Your task to perform on an android device: open device folders in google photos Image 0: 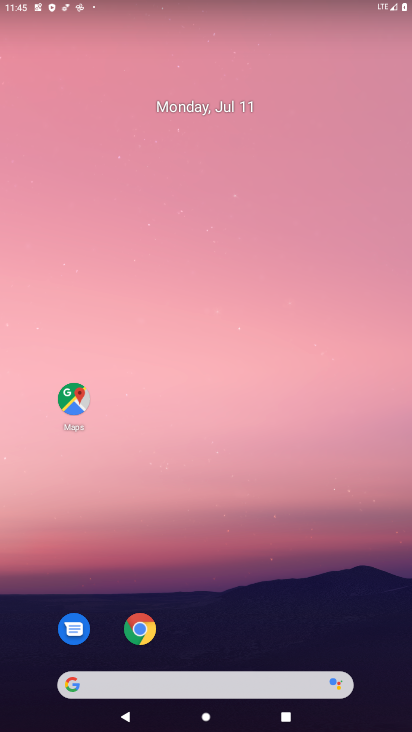
Step 0: drag from (288, 616) to (236, 69)
Your task to perform on an android device: open device folders in google photos Image 1: 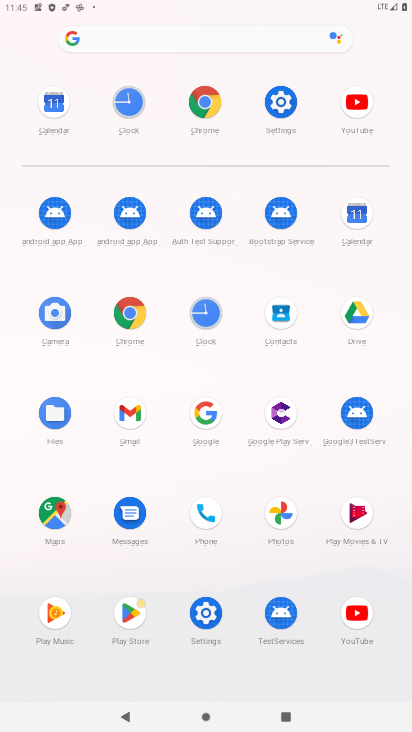
Step 1: click (281, 126)
Your task to perform on an android device: open device folders in google photos Image 2: 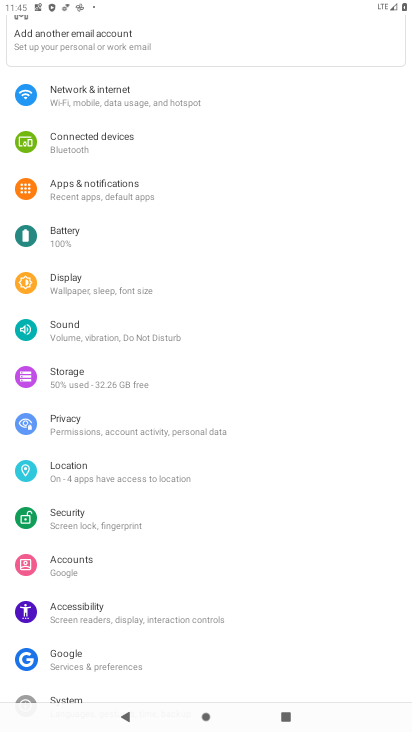
Step 2: press home button
Your task to perform on an android device: open device folders in google photos Image 3: 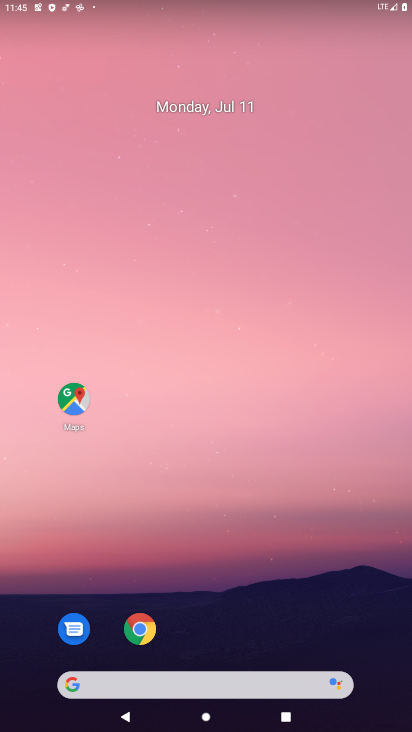
Step 3: drag from (290, 633) to (245, 183)
Your task to perform on an android device: open device folders in google photos Image 4: 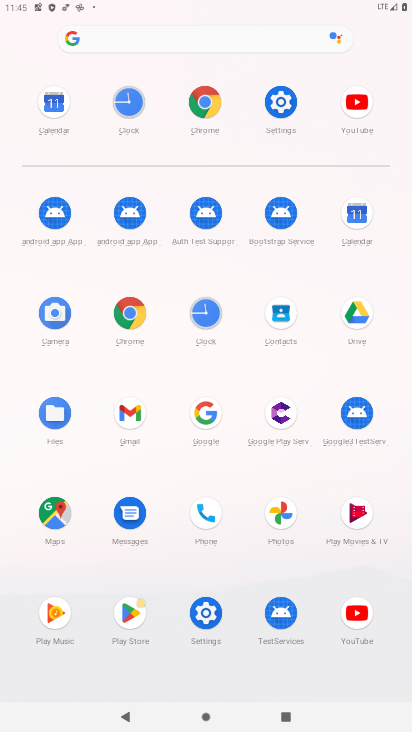
Step 4: click (269, 502)
Your task to perform on an android device: open device folders in google photos Image 5: 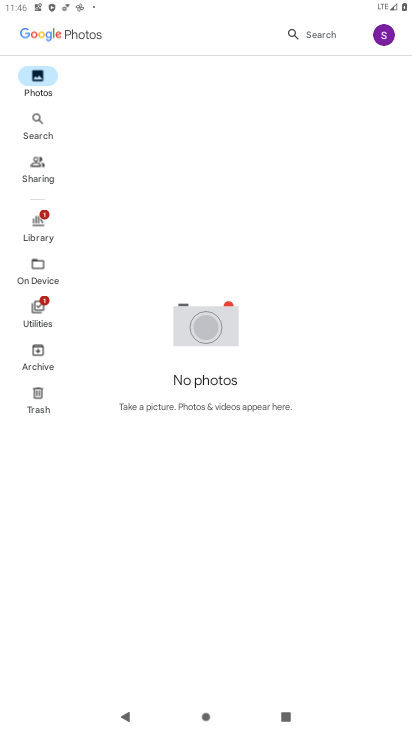
Step 5: click (32, 269)
Your task to perform on an android device: open device folders in google photos Image 6: 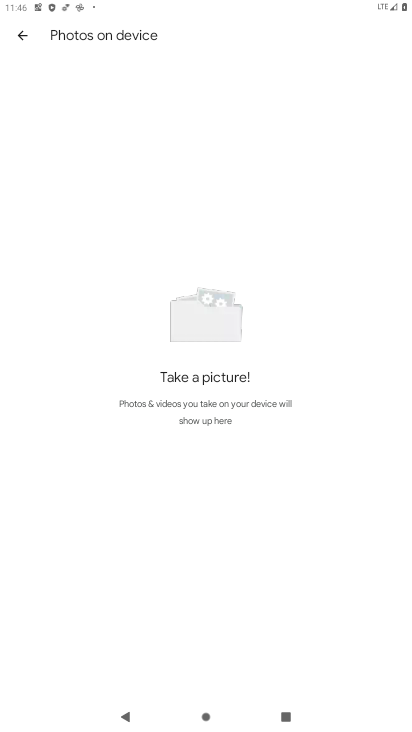
Step 6: task complete